Your task to perform on an android device: change timer sound Image 0: 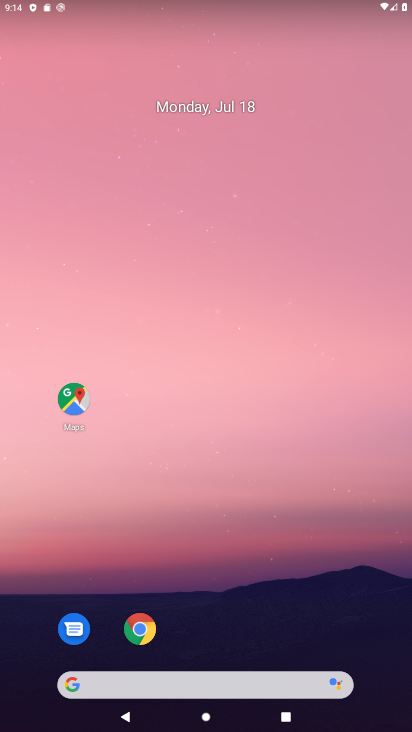
Step 0: drag from (192, 619) to (122, 157)
Your task to perform on an android device: change timer sound Image 1: 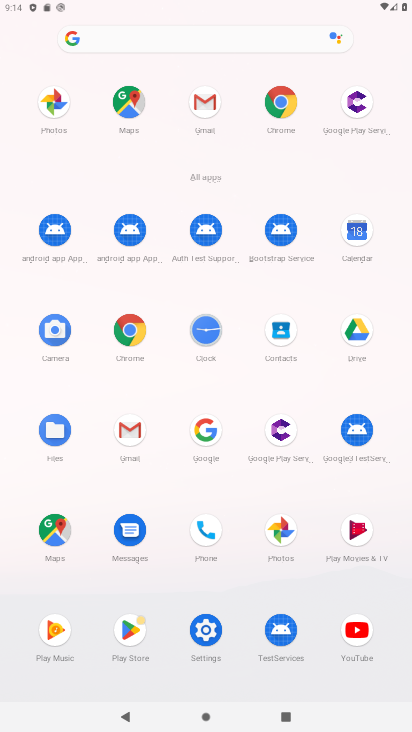
Step 1: click (208, 336)
Your task to perform on an android device: change timer sound Image 2: 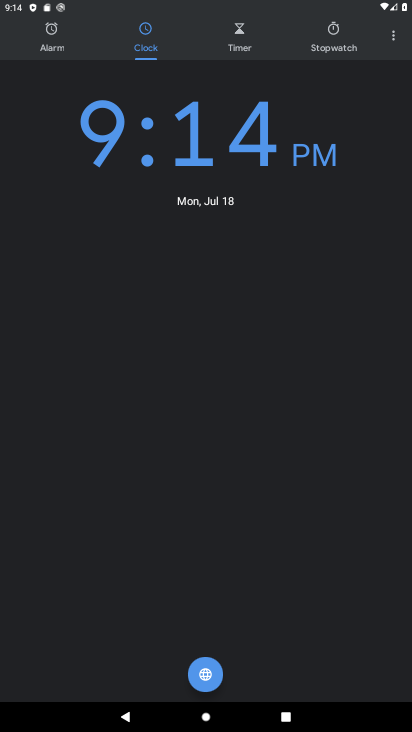
Step 2: click (394, 38)
Your task to perform on an android device: change timer sound Image 3: 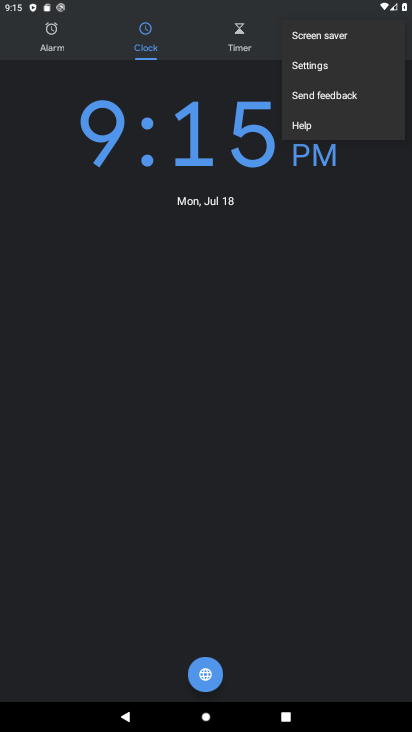
Step 3: click (320, 71)
Your task to perform on an android device: change timer sound Image 4: 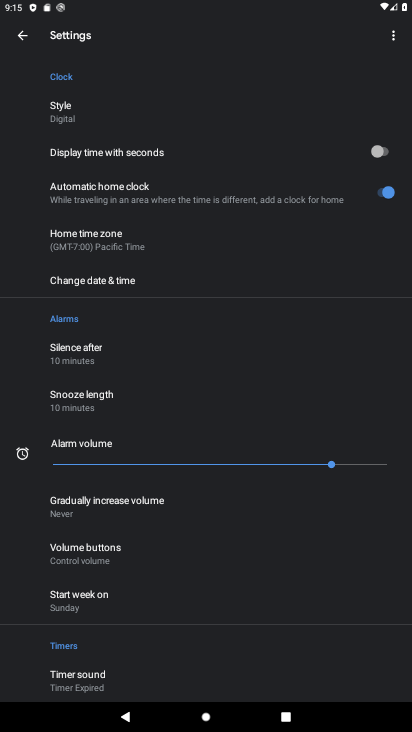
Step 4: drag from (119, 589) to (89, 133)
Your task to perform on an android device: change timer sound Image 5: 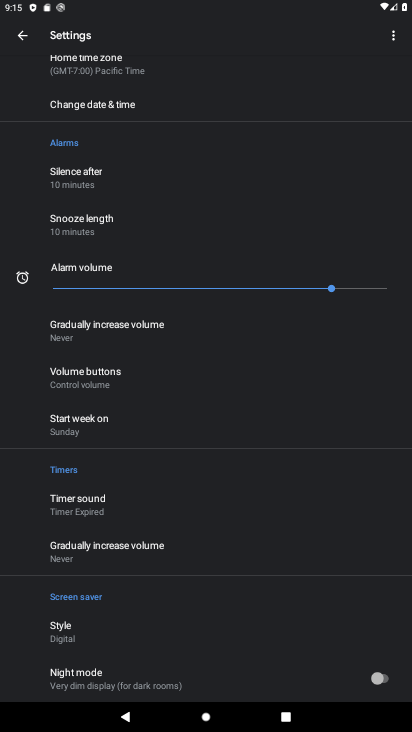
Step 5: drag from (125, 617) to (120, 241)
Your task to perform on an android device: change timer sound Image 6: 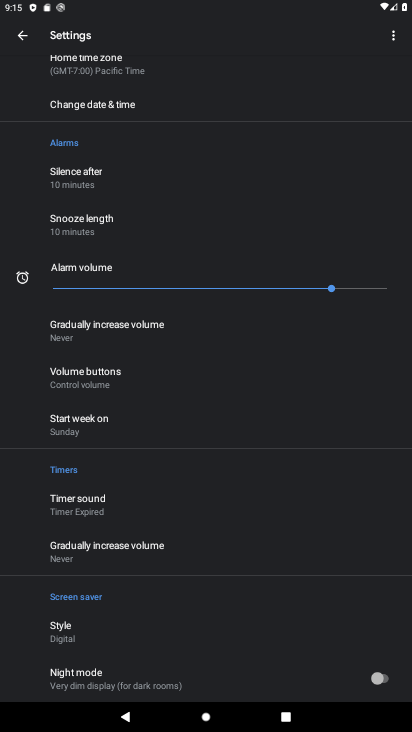
Step 6: click (119, 513)
Your task to perform on an android device: change timer sound Image 7: 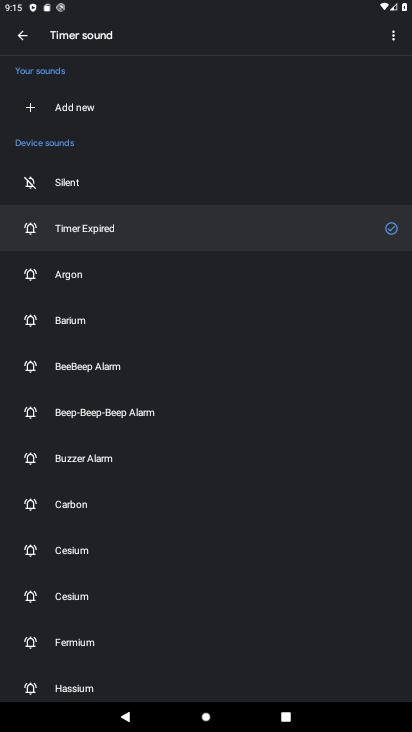
Step 7: click (81, 654)
Your task to perform on an android device: change timer sound Image 8: 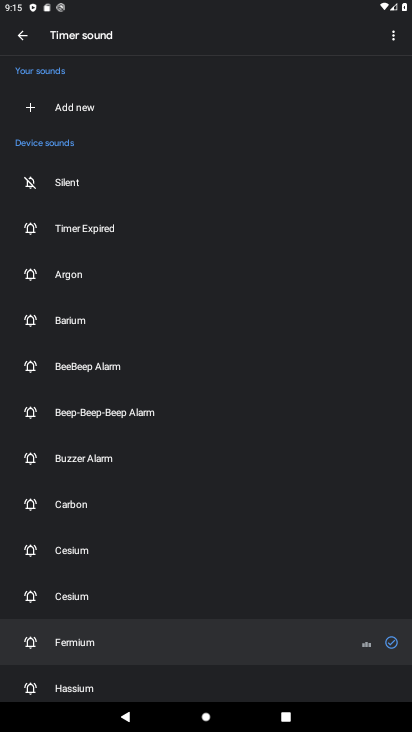
Step 8: task complete